Your task to perform on an android device: toggle pop-ups in chrome Image 0: 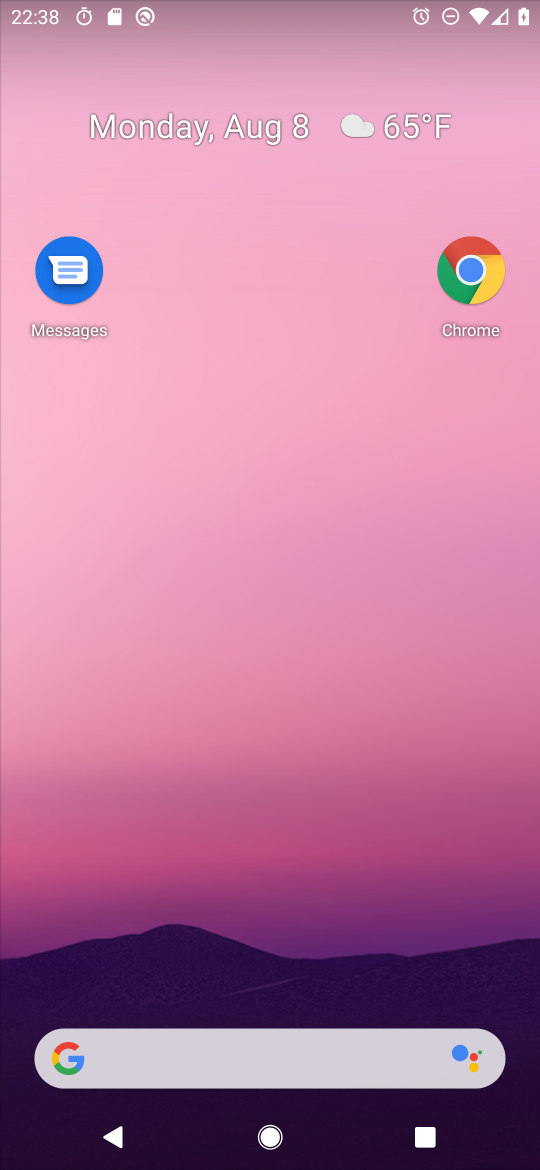
Step 0: drag from (223, 991) to (204, 211)
Your task to perform on an android device: toggle pop-ups in chrome Image 1: 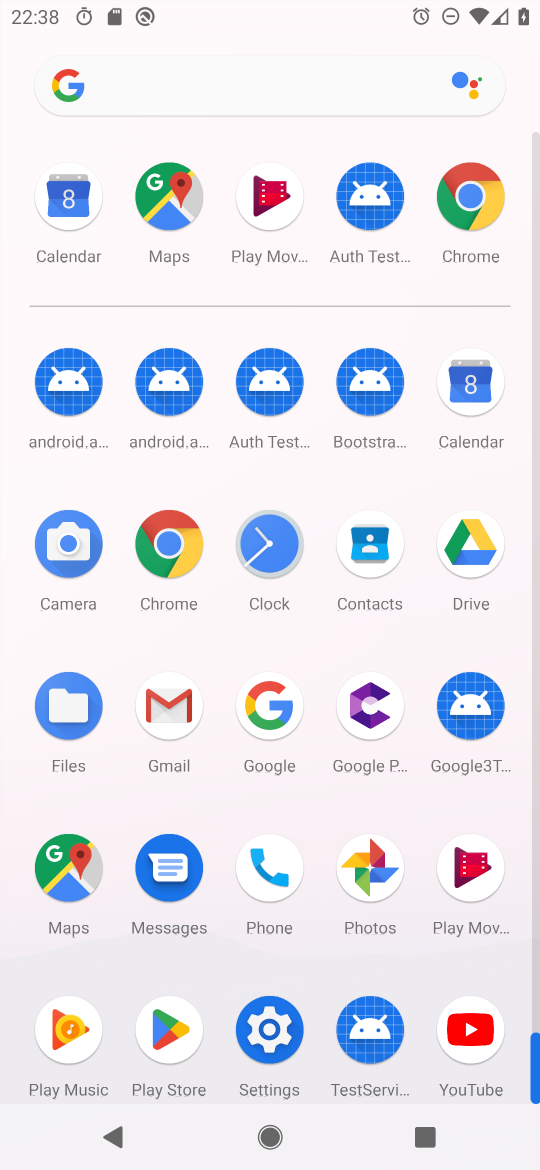
Step 1: click (164, 561)
Your task to perform on an android device: toggle pop-ups in chrome Image 2: 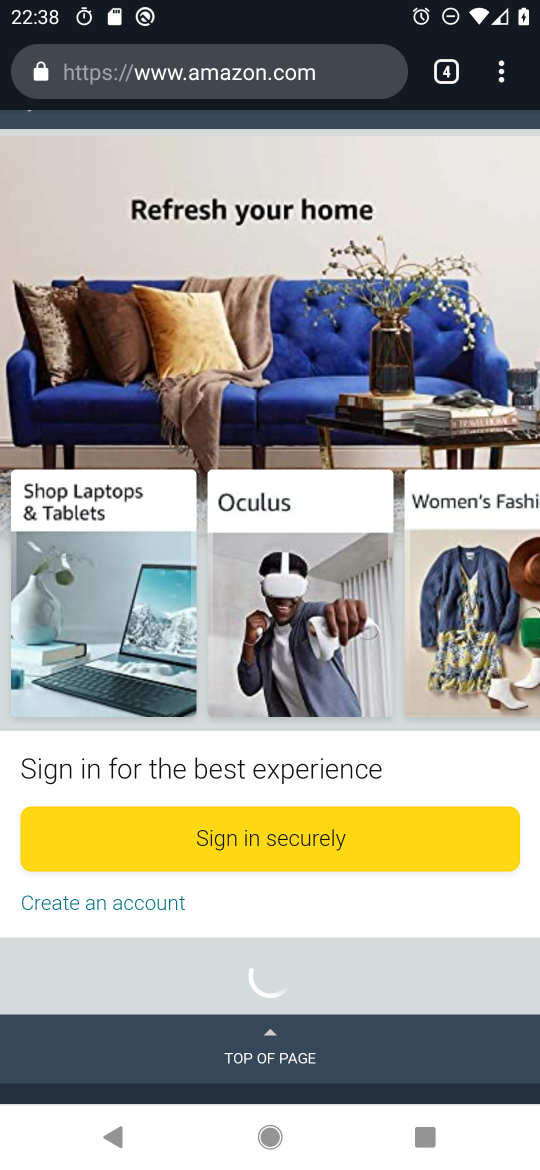
Step 2: drag from (502, 68) to (348, 867)
Your task to perform on an android device: toggle pop-ups in chrome Image 3: 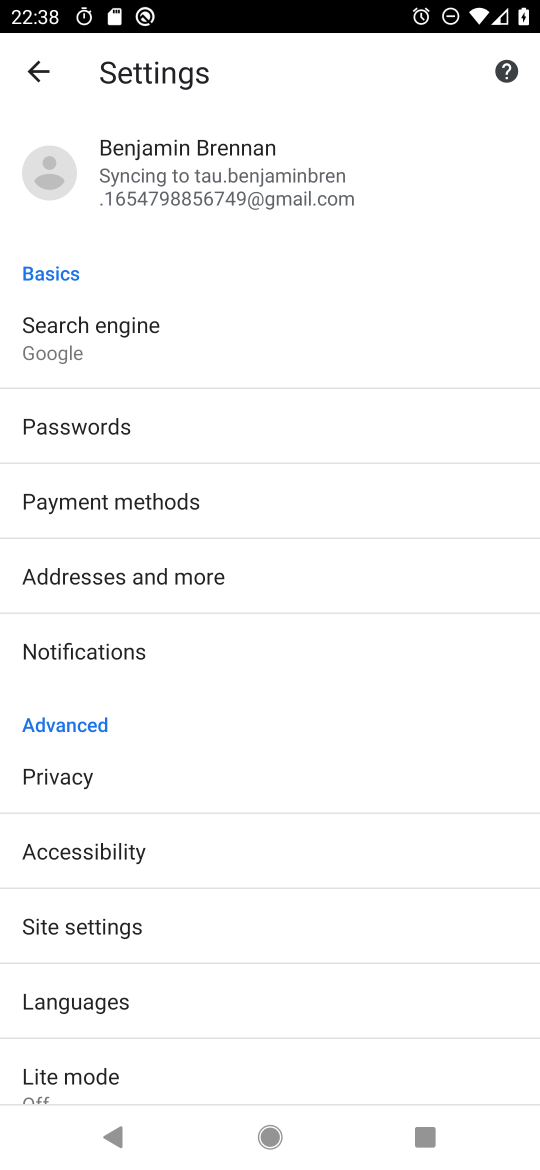
Step 3: click (80, 923)
Your task to perform on an android device: toggle pop-ups in chrome Image 4: 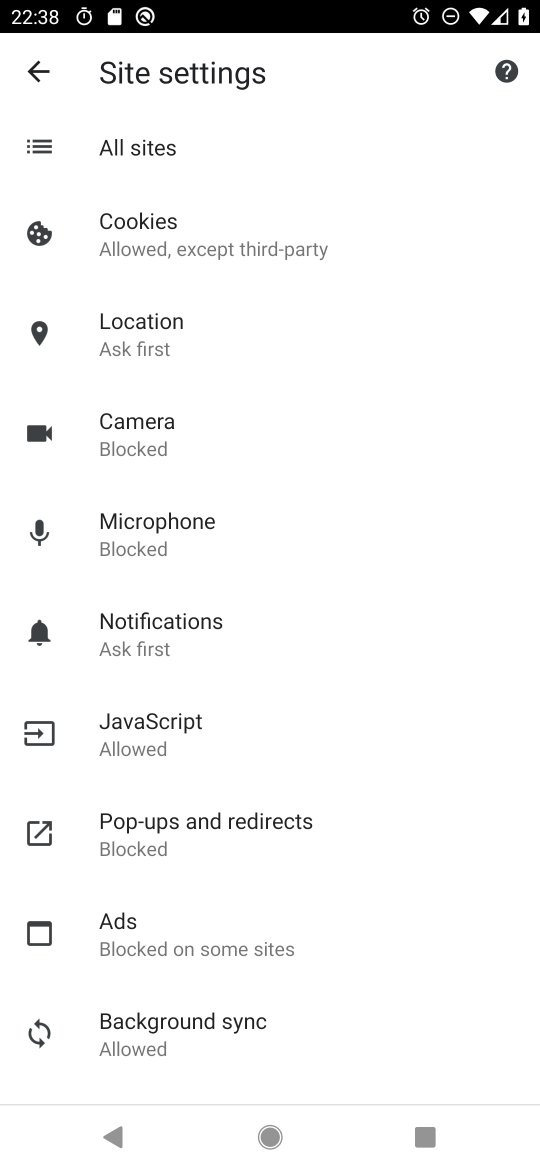
Step 4: click (193, 844)
Your task to perform on an android device: toggle pop-ups in chrome Image 5: 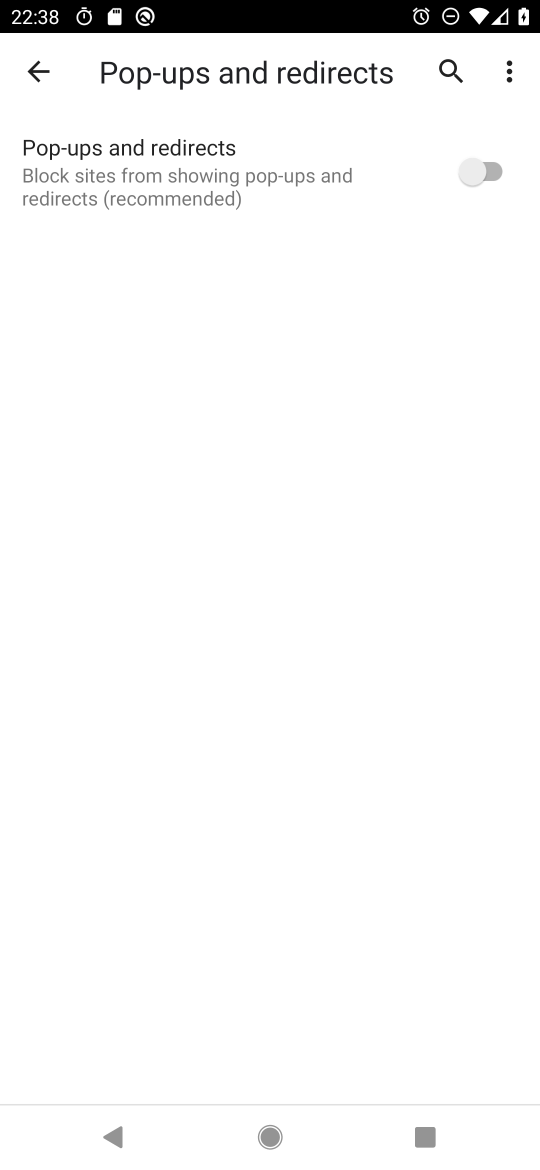
Step 5: click (428, 174)
Your task to perform on an android device: toggle pop-ups in chrome Image 6: 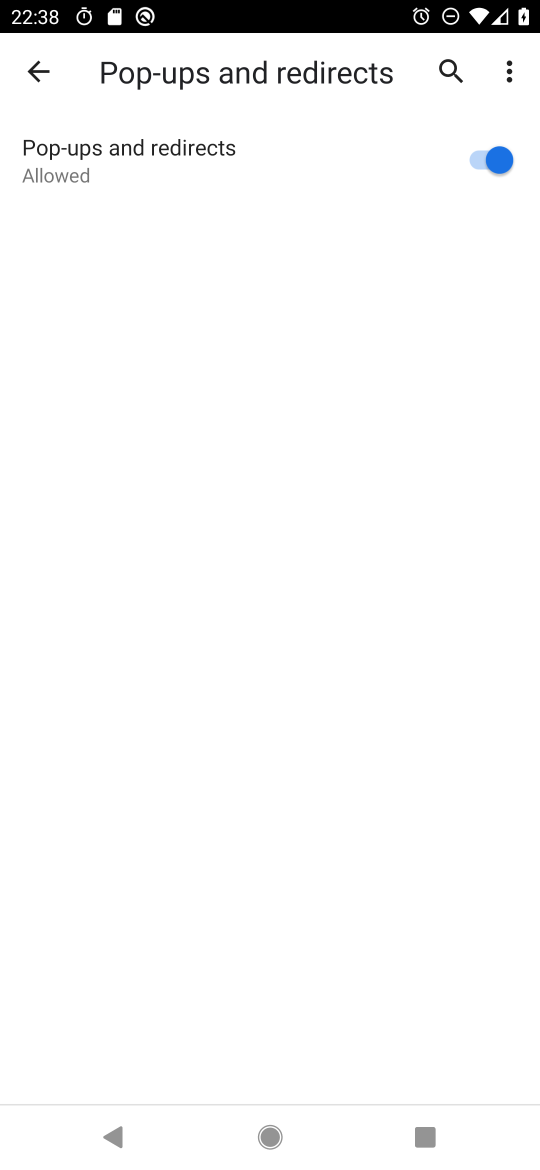
Step 6: task complete